Your task to perform on an android device: install app "NewsBreak: Local News & Alerts" Image 0: 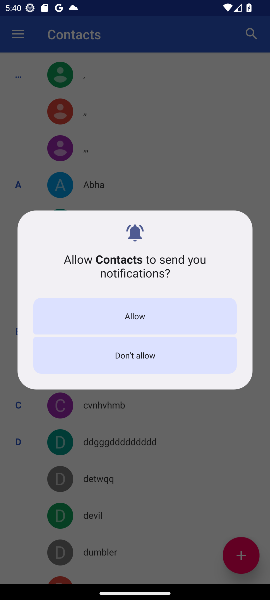
Step 0: press home button
Your task to perform on an android device: install app "NewsBreak: Local News & Alerts" Image 1: 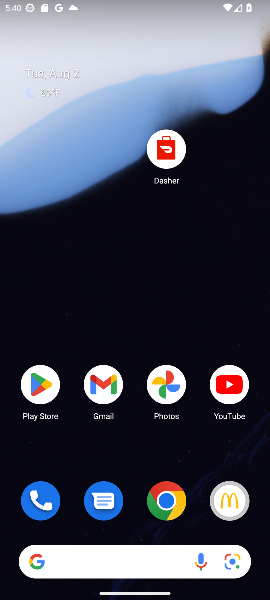
Step 1: click (35, 387)
Your task to perform on an android device: install app "NewsBreak: Local News & Alerts" Image 2: 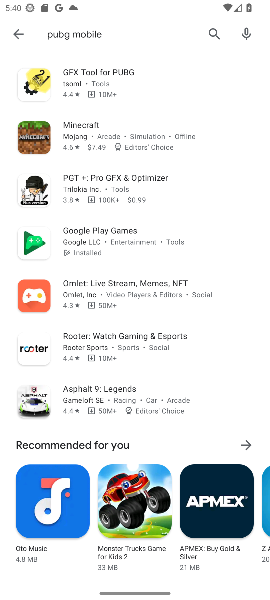
Step 2: click (214, 30)
Your task to perform on an android device: install app "NewsBreak: Local News & Alerts" Image 3: 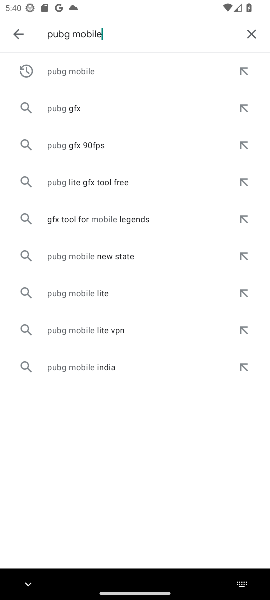
Step 3: click (249, 35)
Your task to perform on an android device: install app "NewsBreak: Local News & Alerts" Image 4: 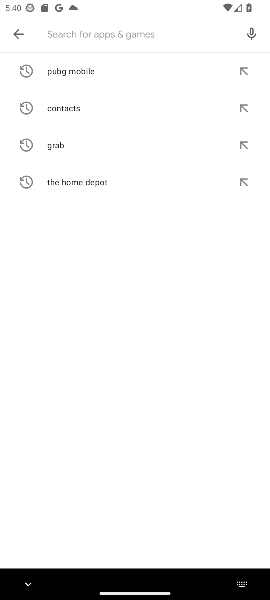
Step 4: type "NewsBreak: Local News & Alerts"
Your task to perform on an android device: install app "NewsBreak: Local News & Alerts" Image 5: 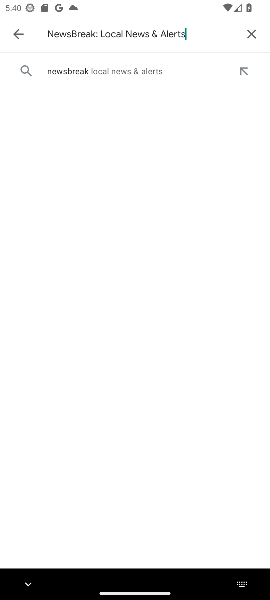
Step 5: click (112, 76)
Your task to perform on an android device: install app "NewsBreak: Local News & Alerts" Image 6: 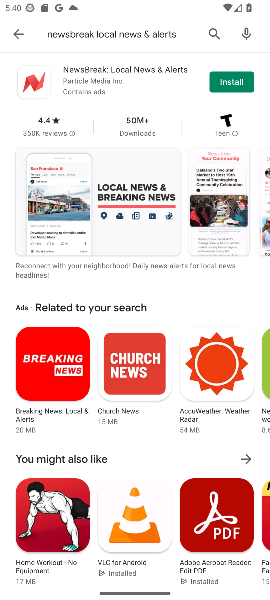
Step 6: click (229, 84)
Your task to perform on an android device: install app "NewsBreak: Local News & Alerts" Image 7: 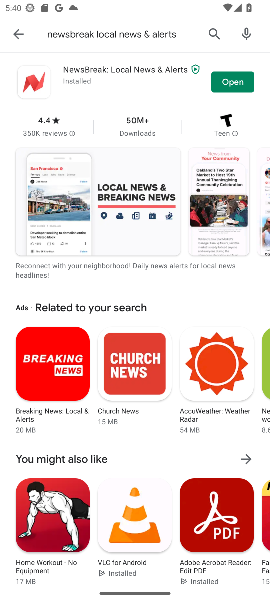
Step 7: task complete